Your task to perform on an android device: Go to network settings Image 0: 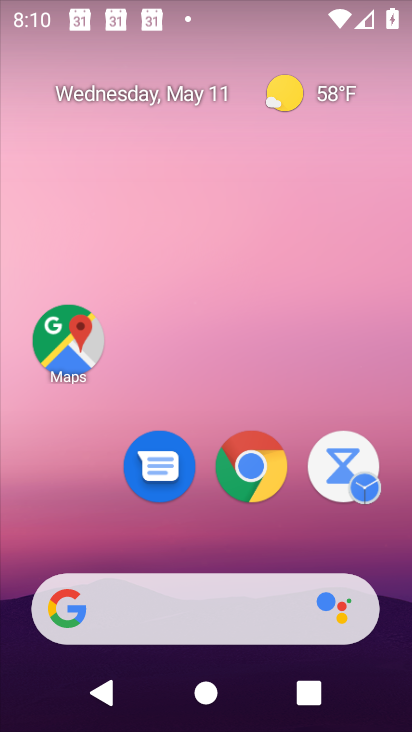
Step 0: drag from (205, 557) to (239, 8)
Your task to perform on an android device: Go to network settings Image 1: 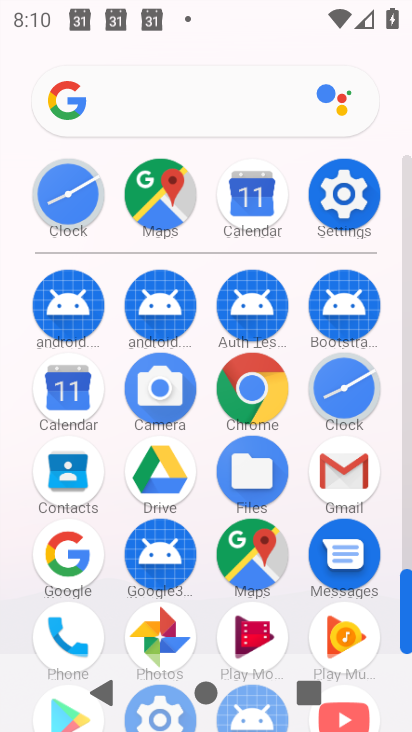
Step 1: click (330, 197)
Your task to perform on an android device: Go to network settings Image 2: 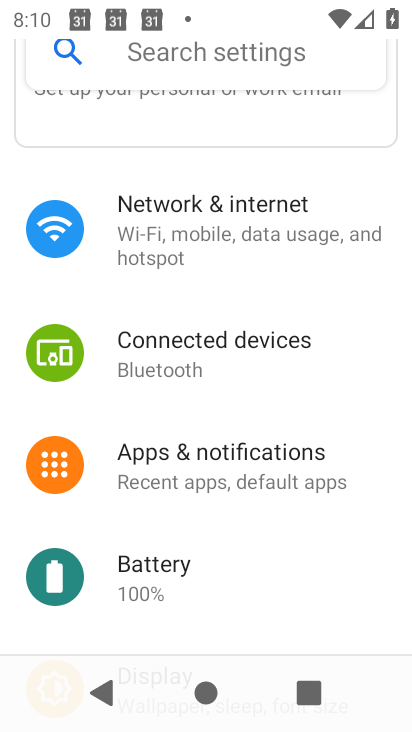
Step 2: click (195, 260)
Your task to perform on an android device: Go to network settings Image 3: 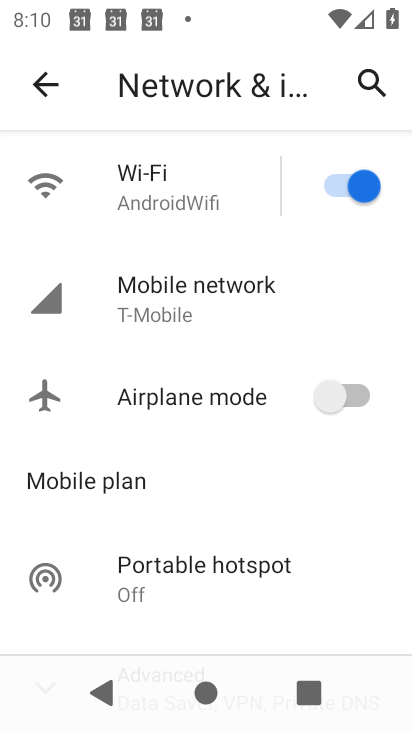
Step 3: click (122, 283)
Your task to perform on an android device: Go to network settings Image 4: 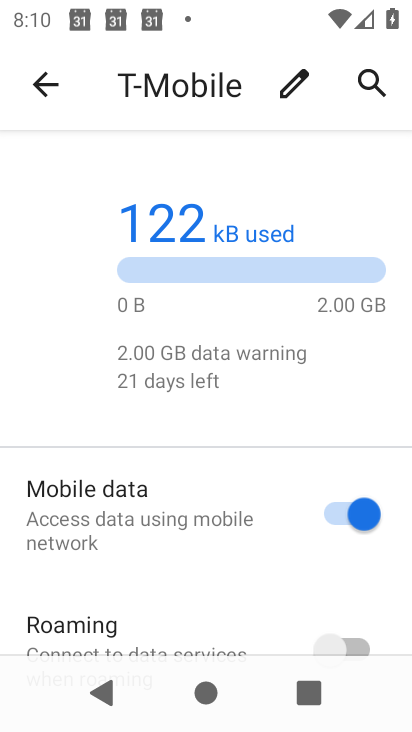
Step 4: task complete